Your task to perform on an android device: Open Amazon Image 0: 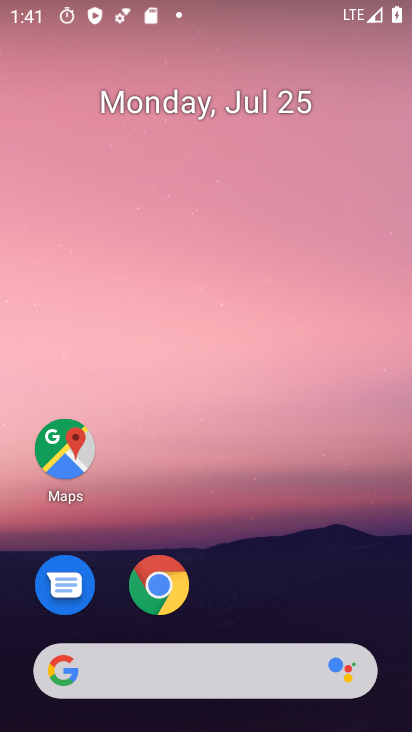
Step 0: click (163, 587)
Your task to perform on an android device: Open Amazon Image 1: 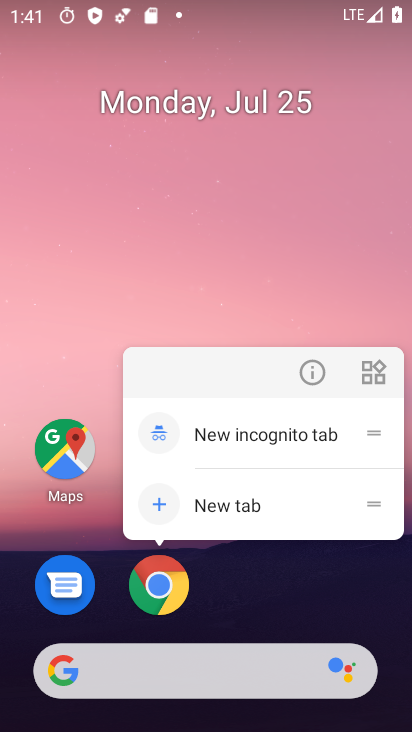
Step 1: click (177, 592)
Your task to perform on an android device: Open Amazon Image 2: 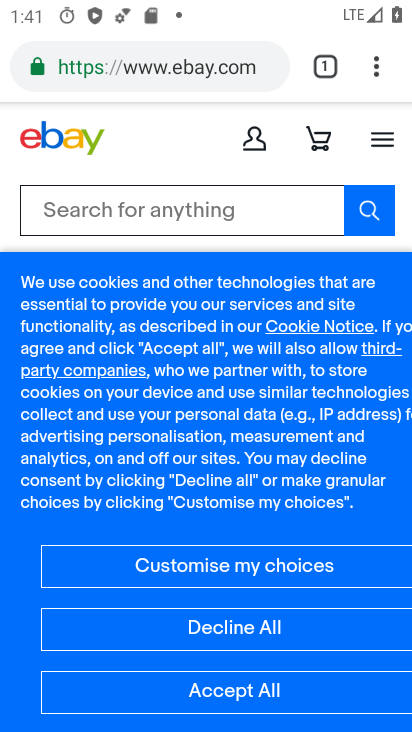
Step 2: click (92, 71)
Your task to perform on an android device: Open Amazon Image 3: 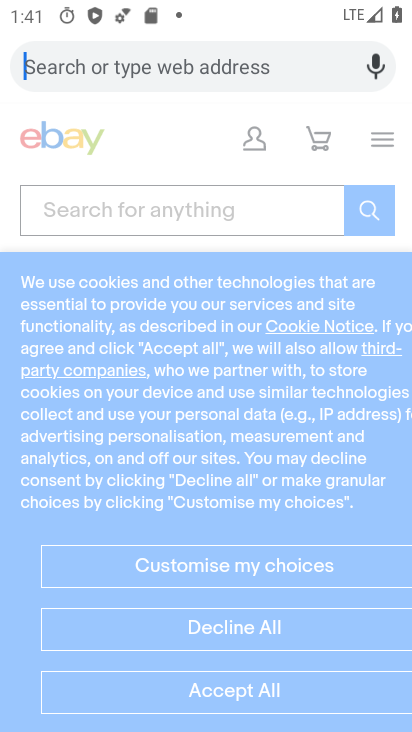
Step 3: click (92, 71)
Your task to perform on an android device: Open Amazon Image 4: 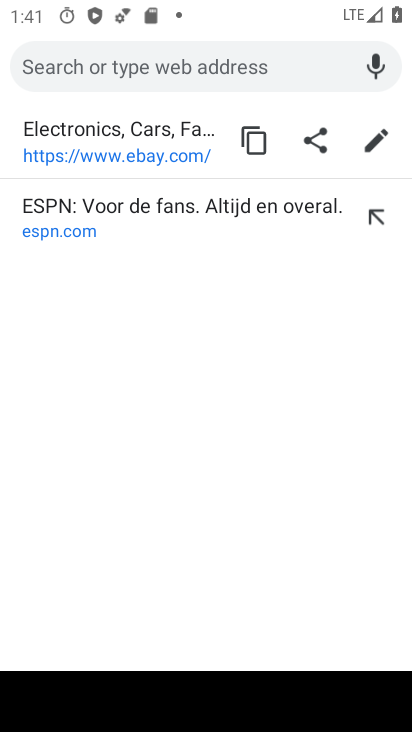
Step 4: type "amazon"
Your task to perform on an android device: Open Amazon Image 5: 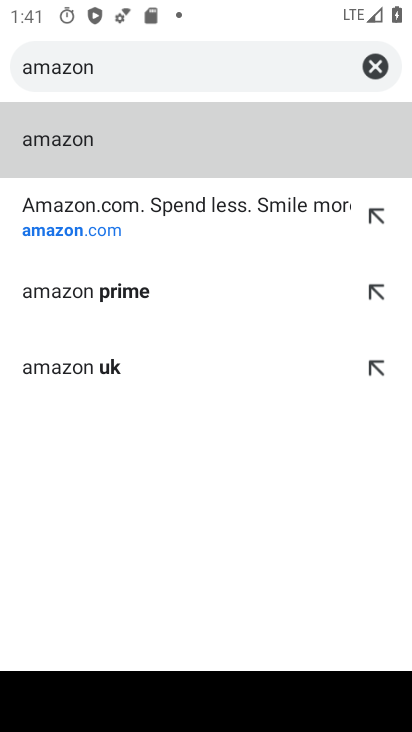
Step 5: click (103, 196)
Your task to perform on an android device: Open Amazon Image 6: 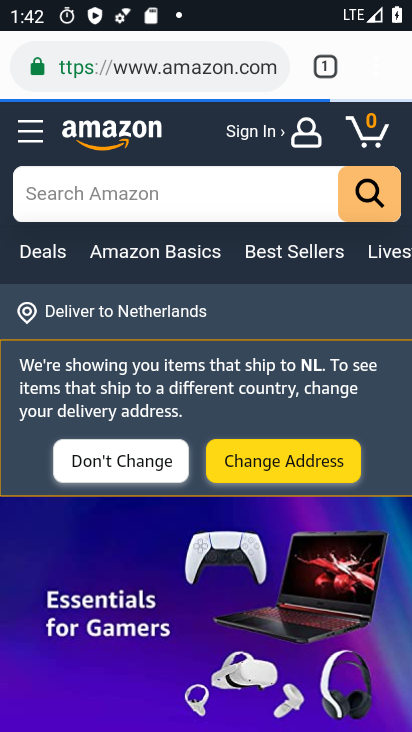
Step 6: task complete